Your task to perform on an android device: Set the phone to "Do not disturb". Image 0: 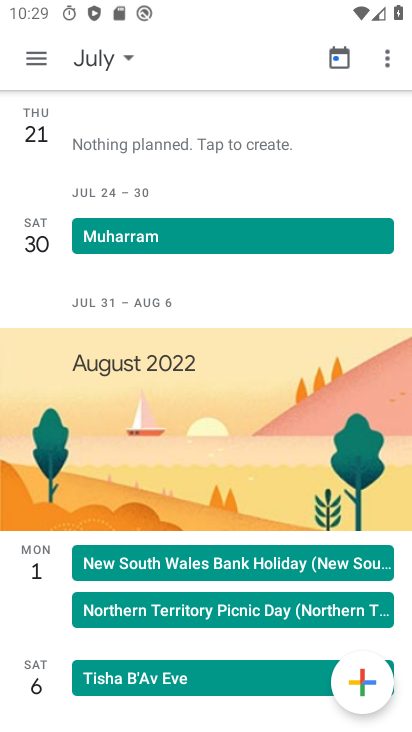
Step 0: press home button
Your task to perform on an android device: Set the phone to "Do not disturb". Image 1: 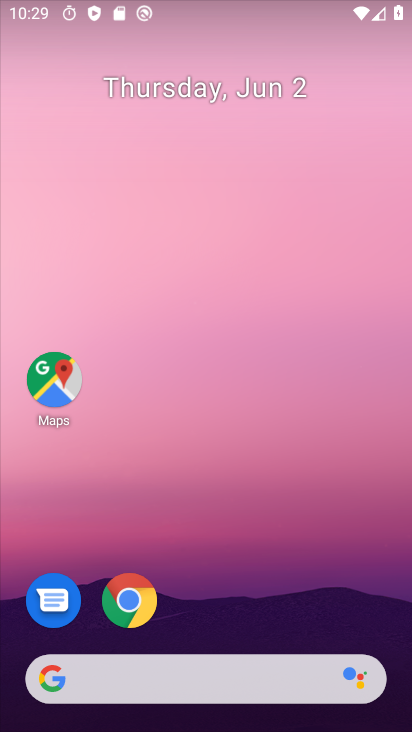
Step 1: drag from (213, 585) to (255, 72)
Your task to perform on an android device: Set the phone to "Do not disturb". Image 2: 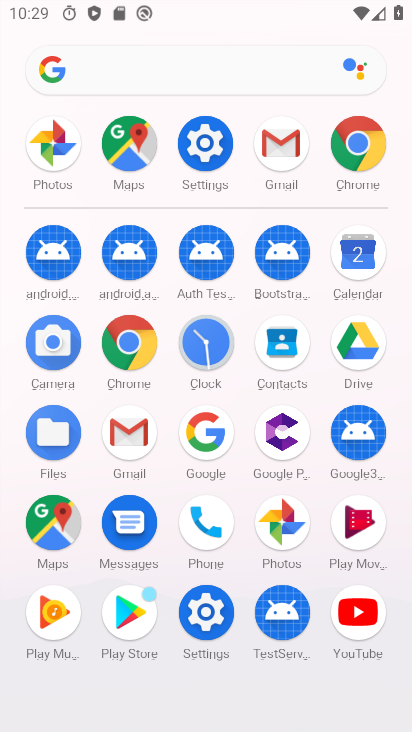
Step 2: click (203, 136)
Your task to perform on an android device: Set the phone to "Do not disturb". Image 3: 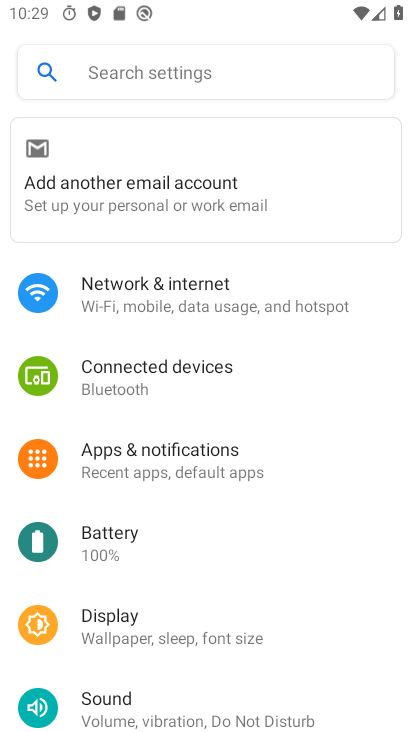
Step 3: click (230, 707)
Your task to perform on an android device: Set the phone to "Do not disturb". Image 4: 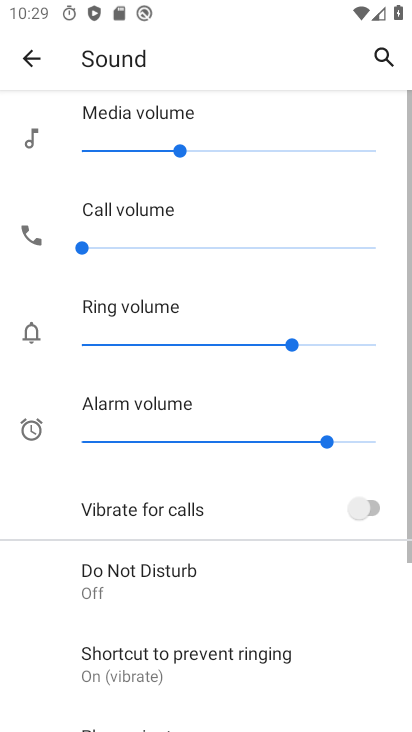
Step 4: drag from (214, 579) to (208, 355)
Your task to perform on an android device: Set the phone to "Do not disturb". Image 5: 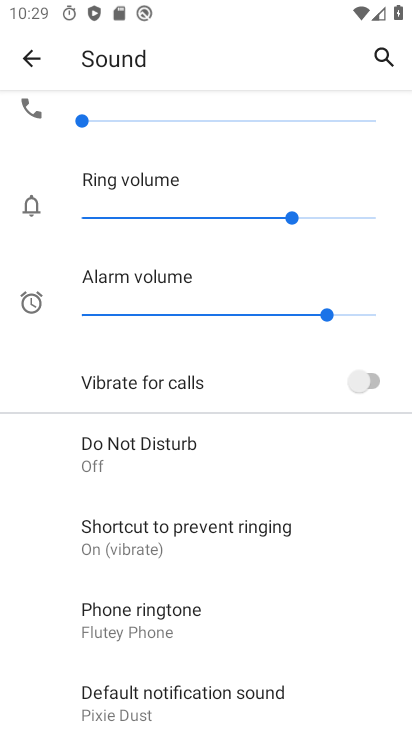
Step 5: click (103, 429)
Your task to perform on an android device: Set the phone to "Do not disturb". Image 6: 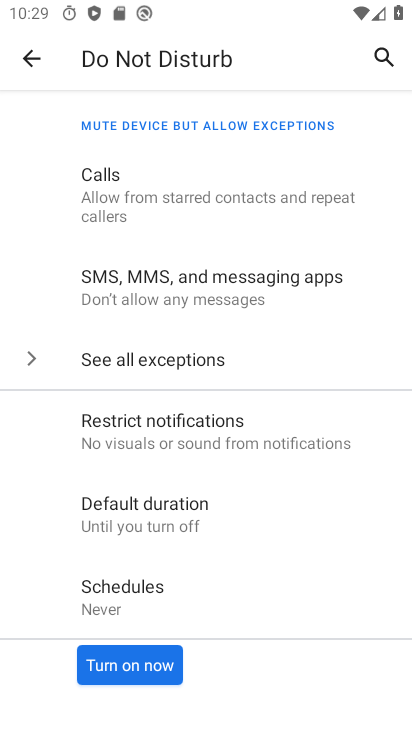
Step 6: click (137, 674)
Your task to perform on an android device: Set the phone to "Do not disturb". Image 7: 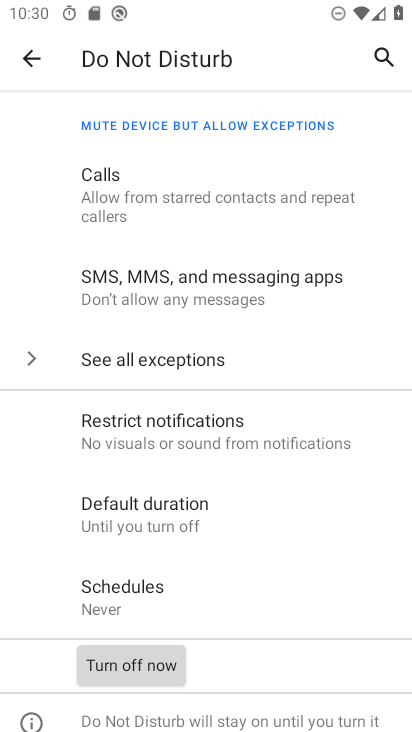
Step 7: task complete